Your task to perform on an android device: Open Yahoo.com Image 0: 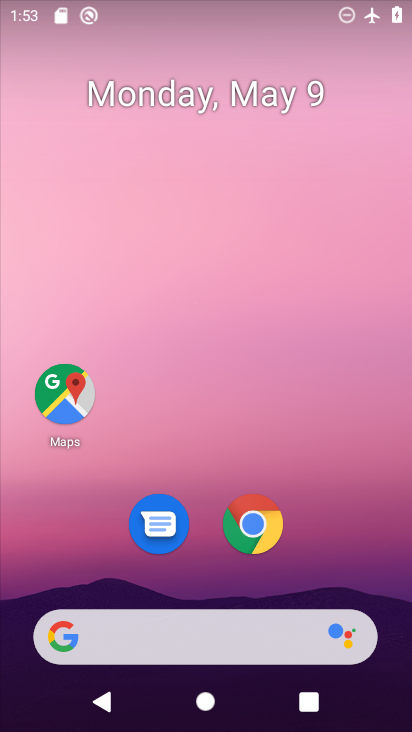
Step 0: click (252, 626)
Your task to perform on an android device: Open Yahoo.com Image 1: 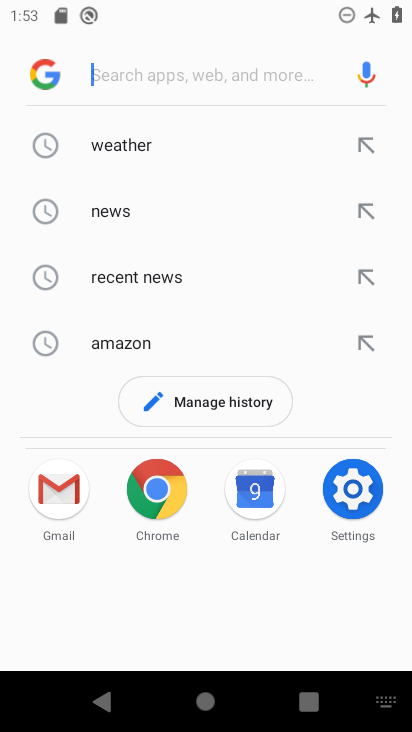
Step 1: type "yahoo.com"
Your task to perform on an android device: Open Yahoo.com Image 2: 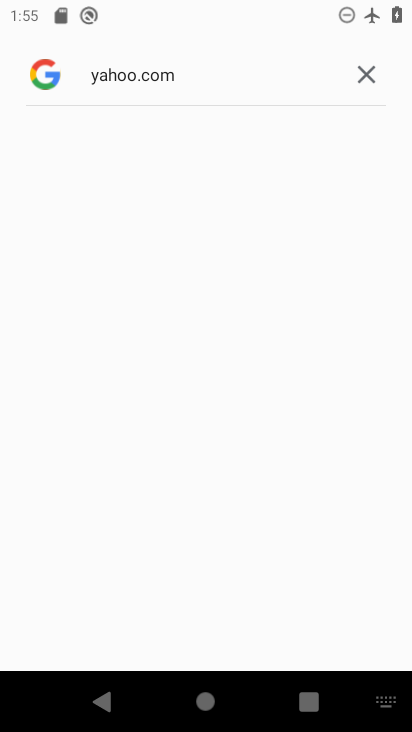
Step 2: task complete